Your task to perform on an android device: Go to Maps Image 0: 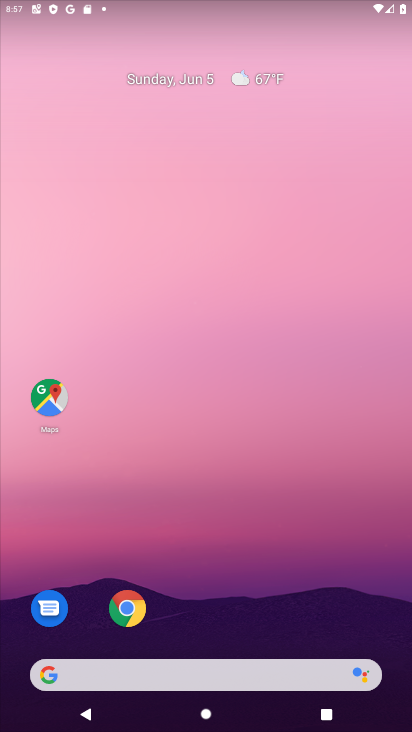
Step 0: click (34, 392)
Your task to perform on an android device: Go to Maps Image 1: 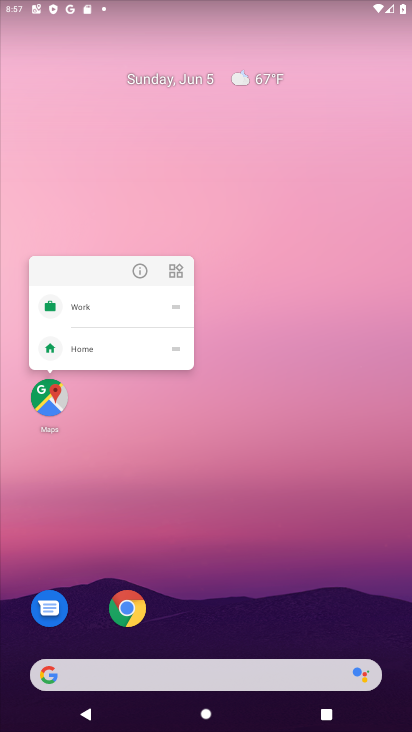
Step 1: click (39, 388)
Your task to perform on an android device: Go to Maps Image 2: 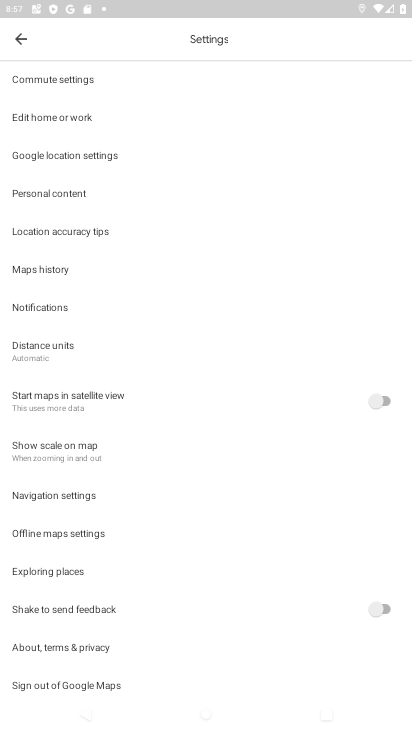
Step 2: click (21, 36)
Your task to perform on an android device: Go to Maps Image 3: 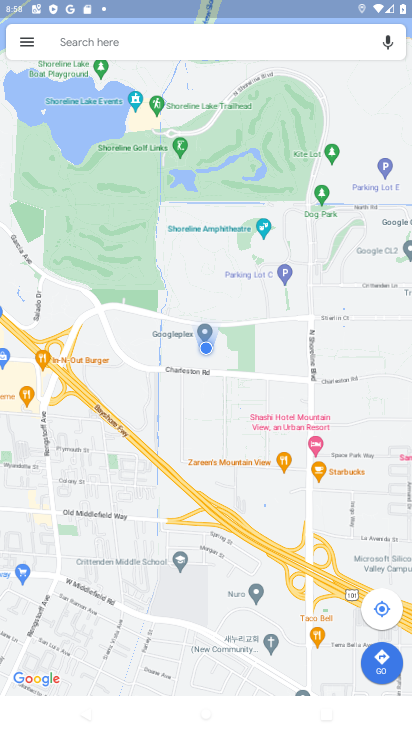
Step 3: task complete